Your task to perform on an android device: install app "PlayWell" Image 0: 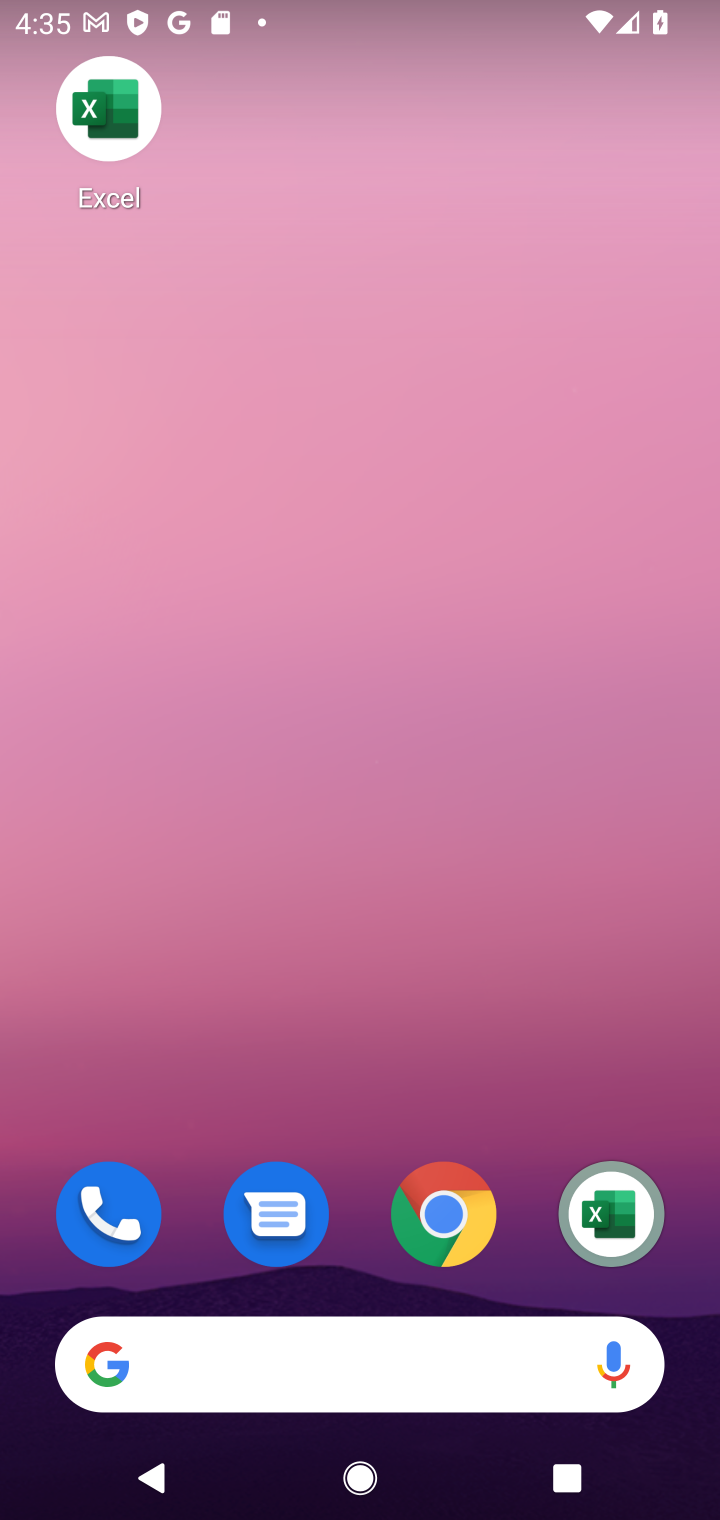
Step 0: drag from (536, 1274) to (441, 107)
Your task to perform on an android device: install app "PlayWell" Image 1: 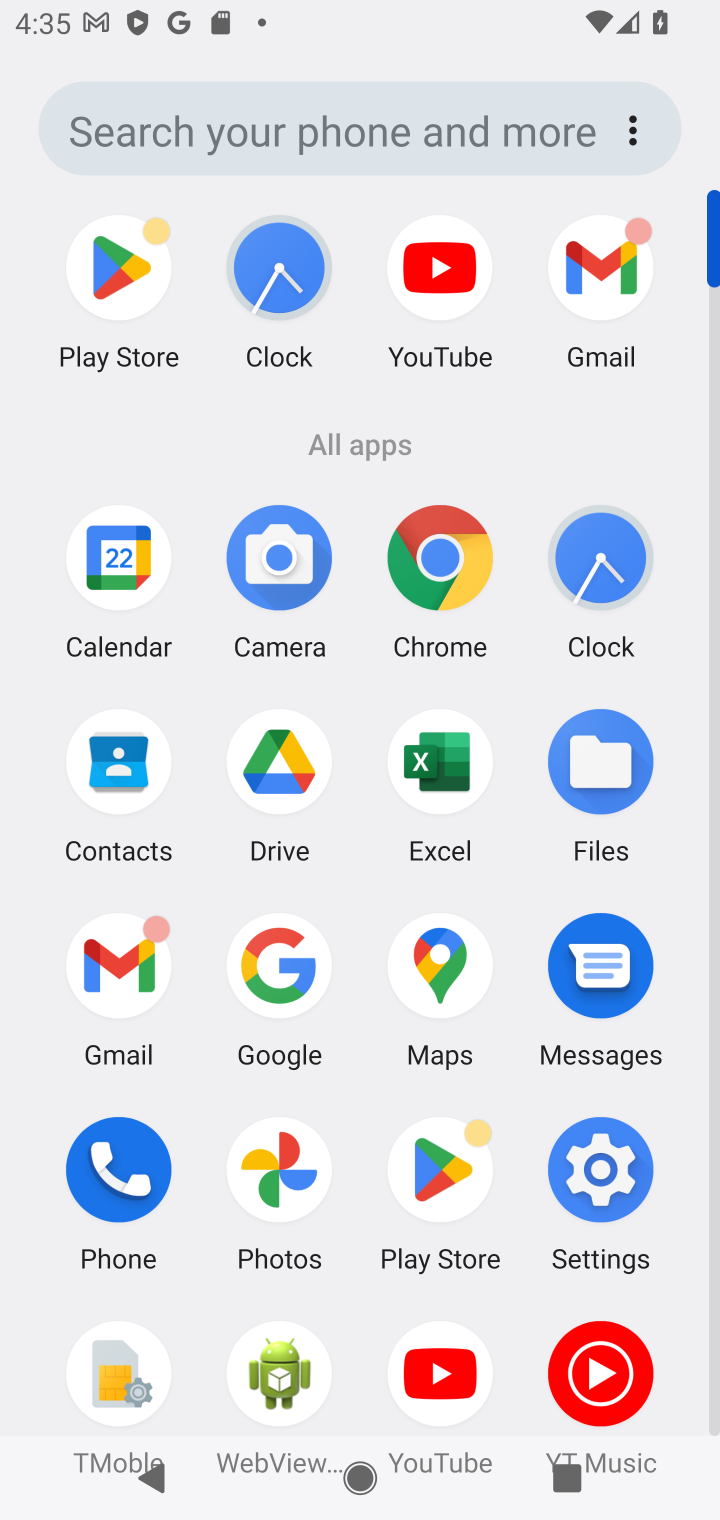
Step 1: click (443, 1172)
Your task to perform on an android device: install app "PlayWell" Image 2: 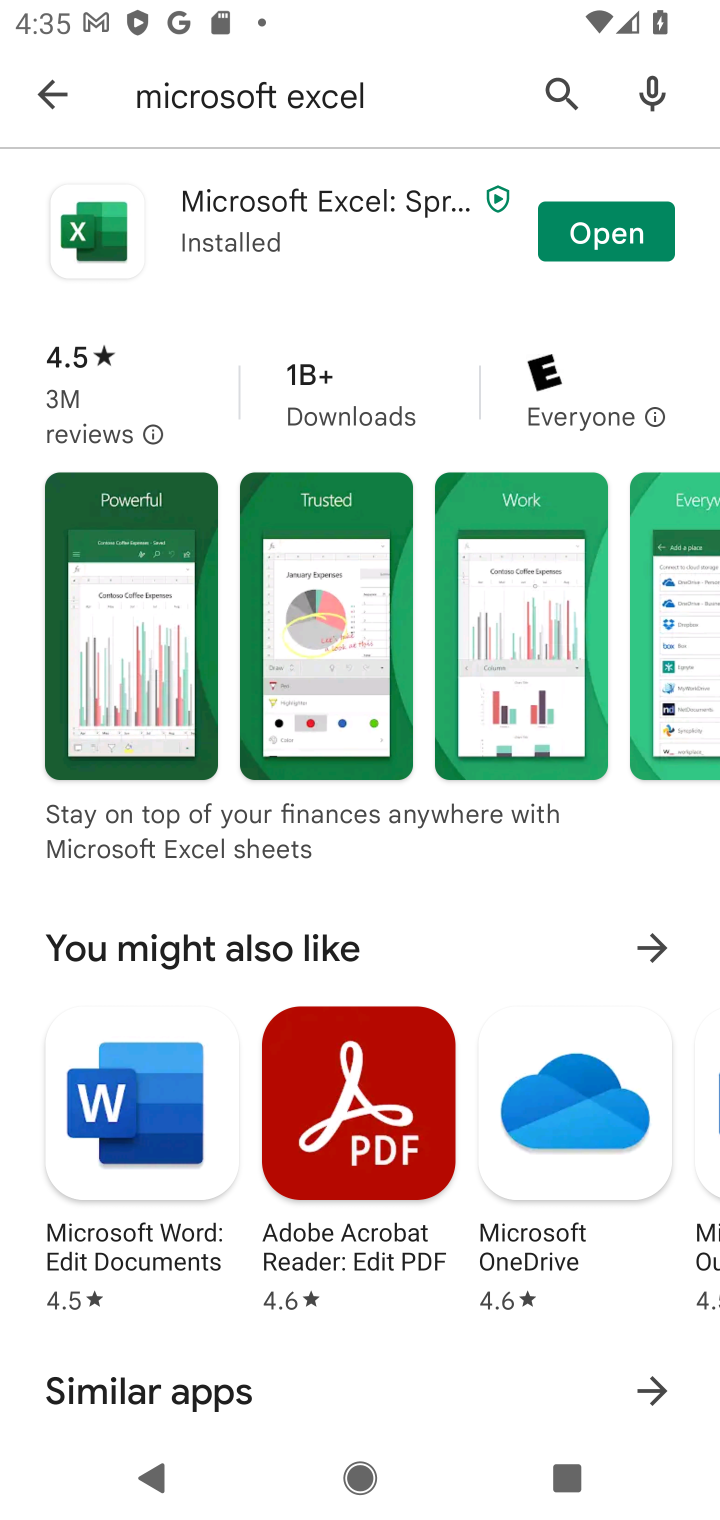
Step 2: click (558, 91)
Your task to perform on an android device: install app "PlayWell" Image 3: 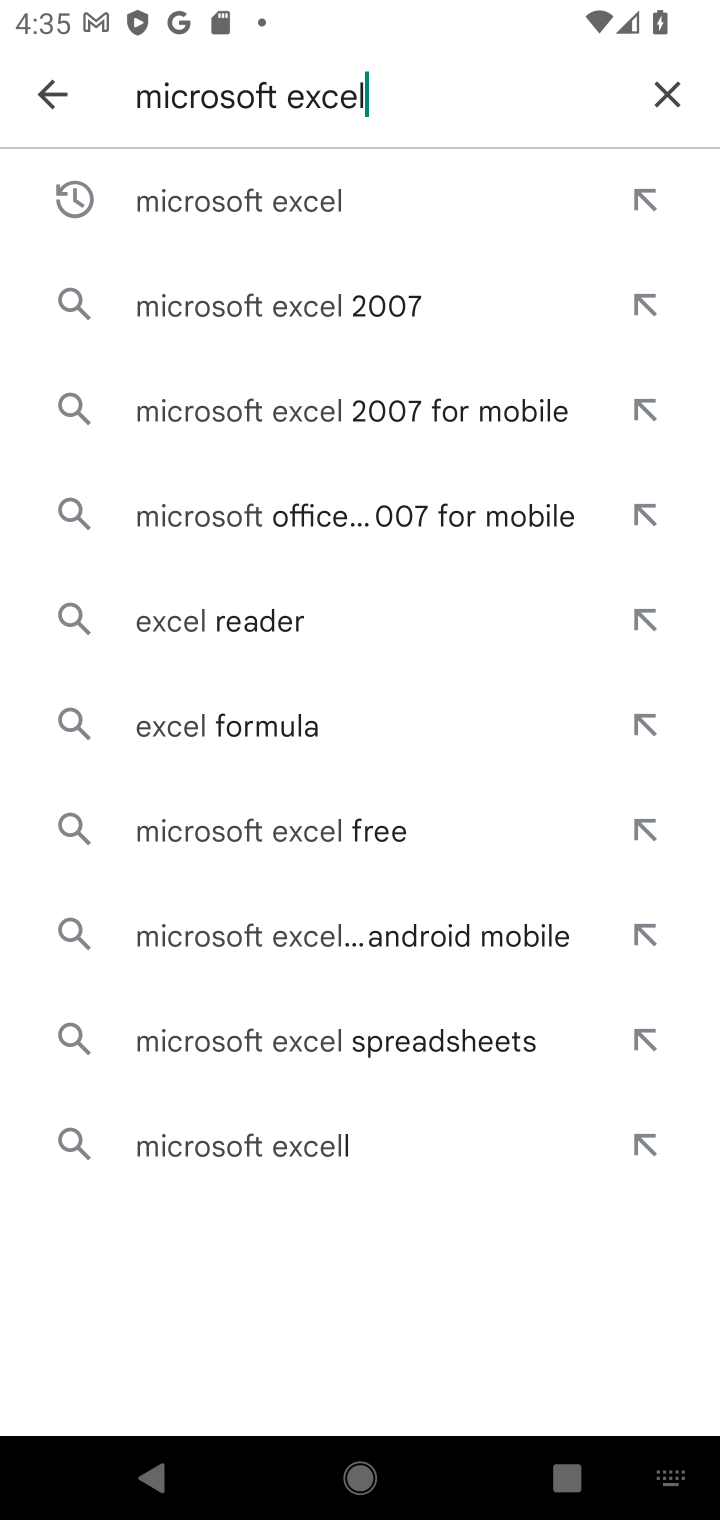
Step 3: click (662, 93)
Your task to perform on an android device: install app "PlayWell" Image 4: 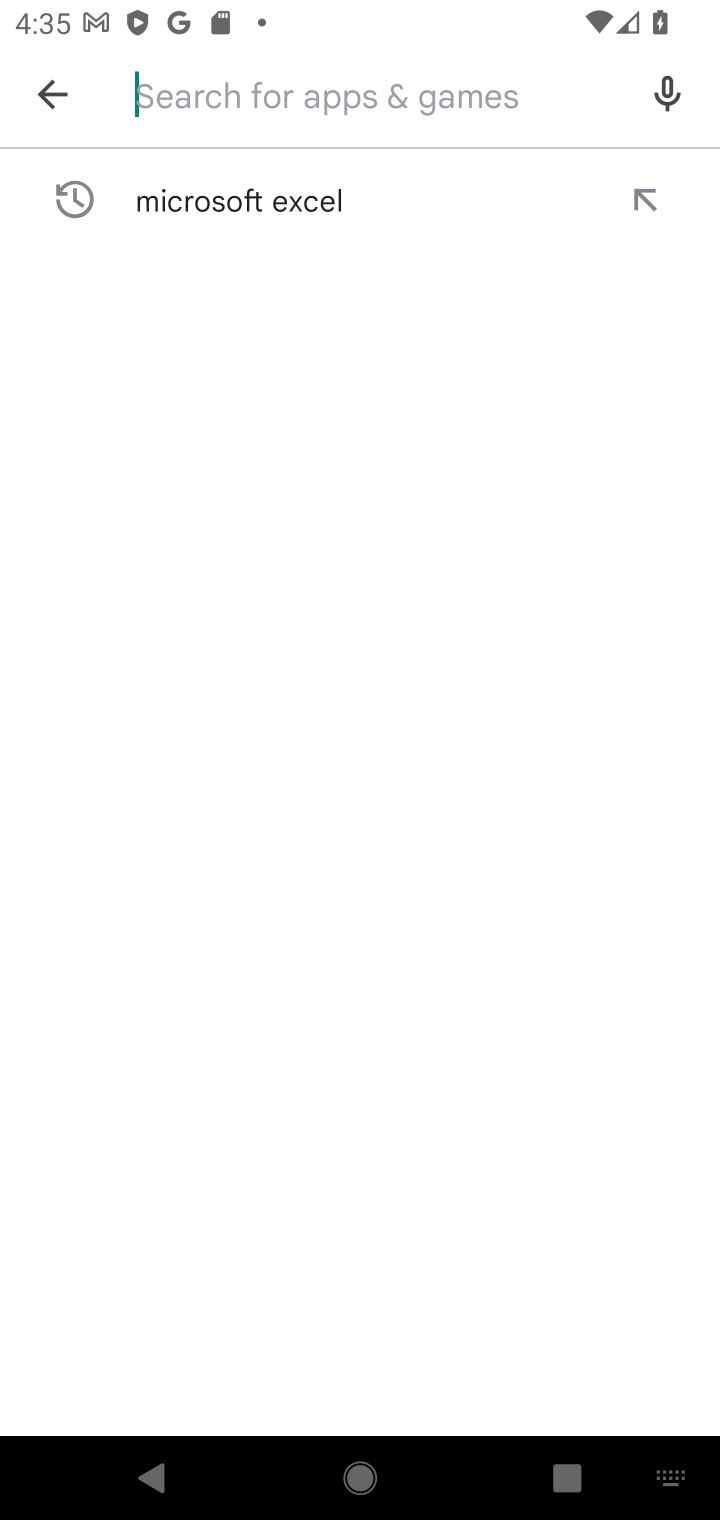
Step 4: type "playwell"
Your task to perform on an android device: install app "PlayWell" Image 5: 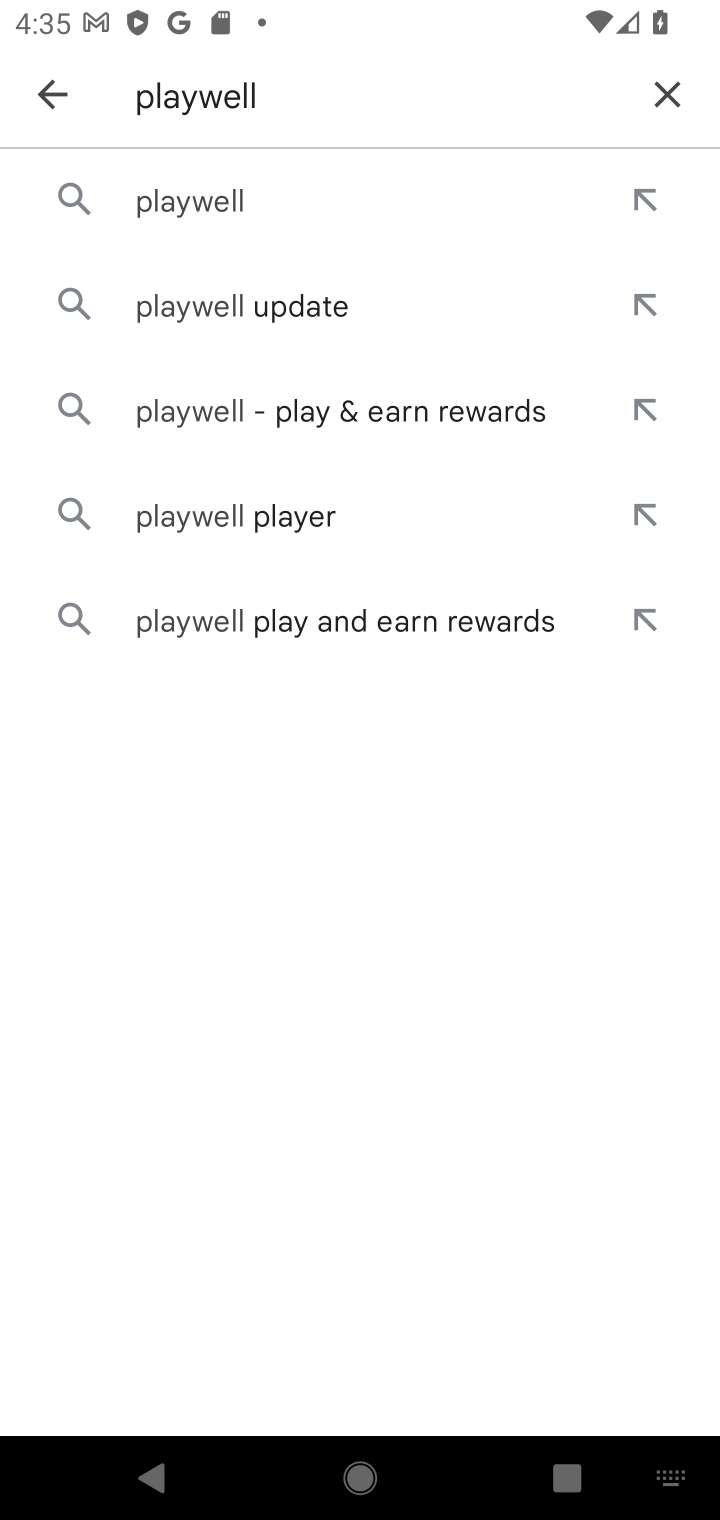
Step 5: click (195, 212)
Your task to perform on an android device: install app "PlayWell" Image 6: 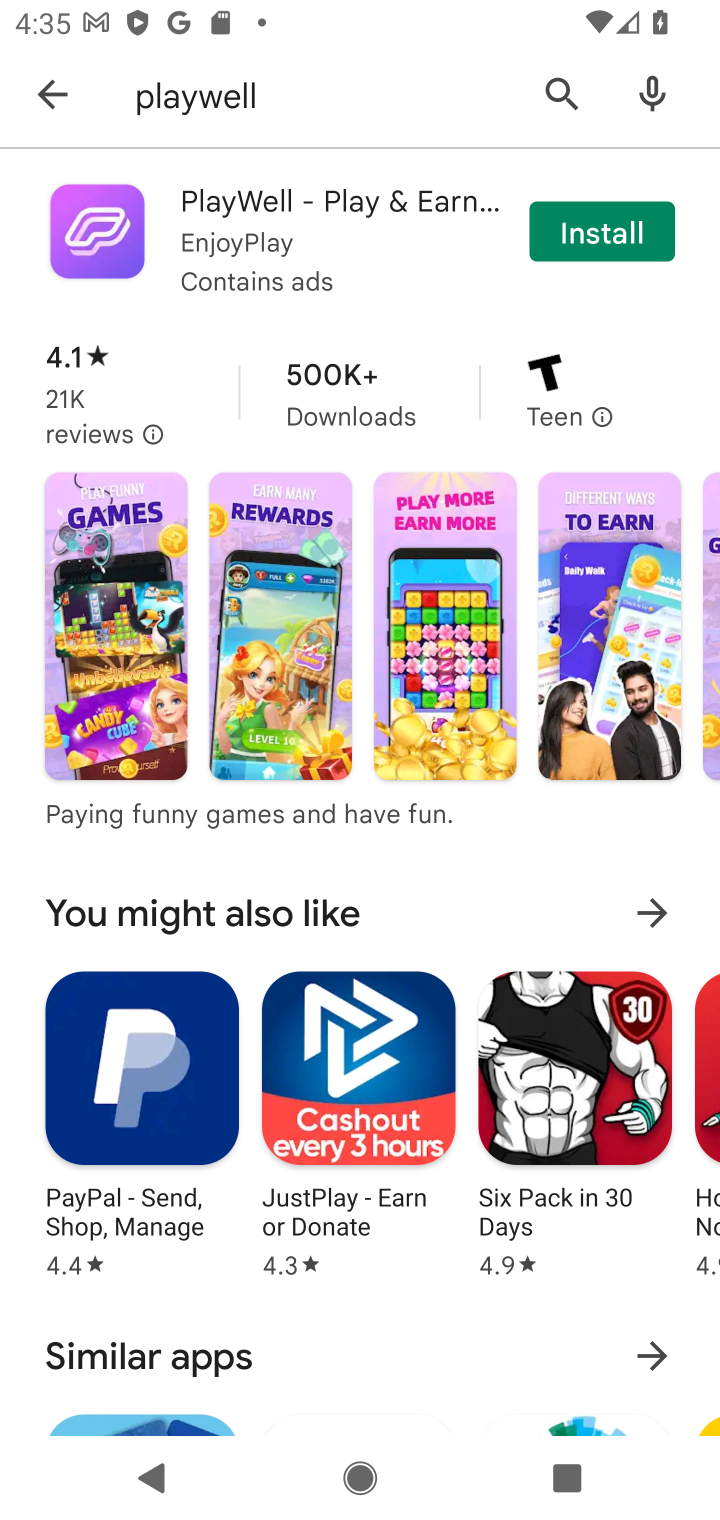
Step 6: click (594, 246)
Your task to perform on an android device: install app "PlayWell" Image 7: 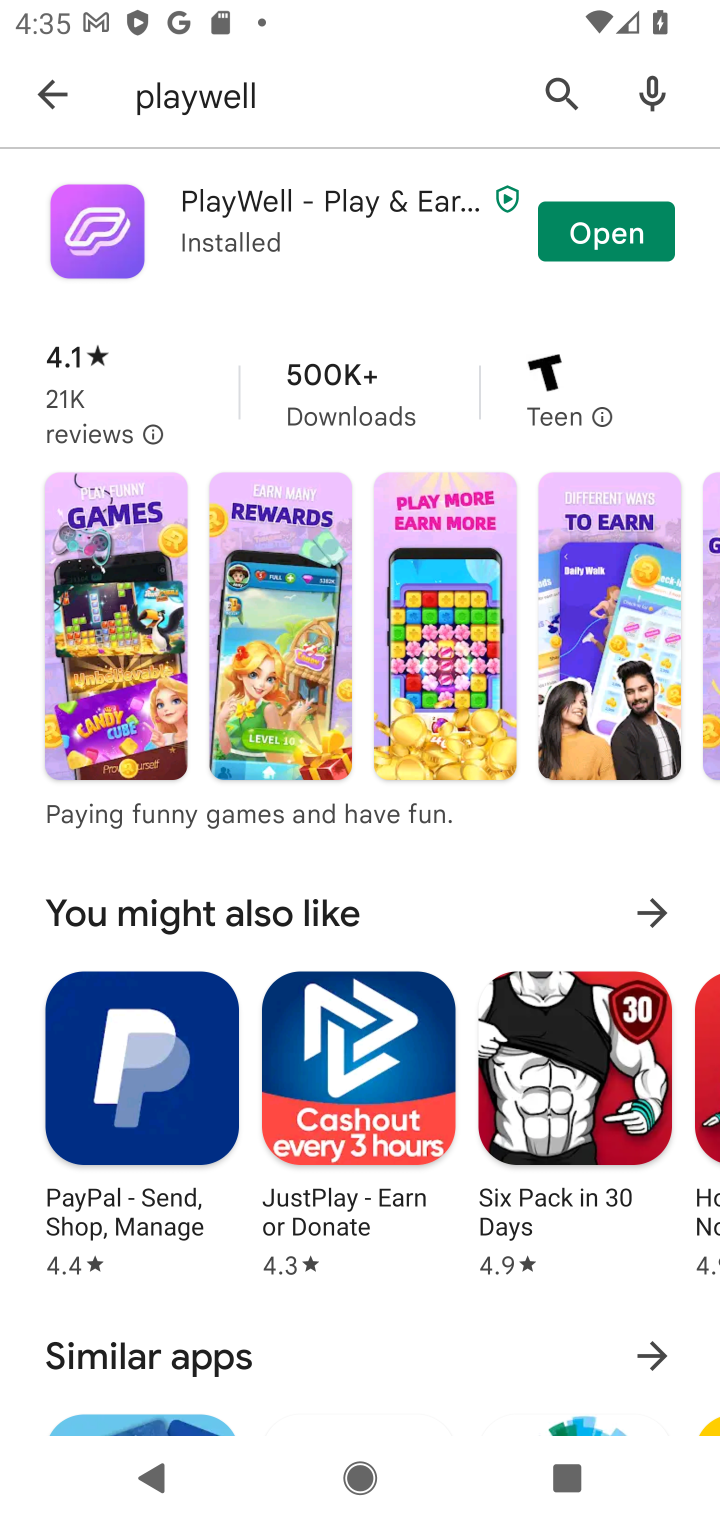
Step 7: task complete